Your task to perform on an android device: Open display settings Image 0: 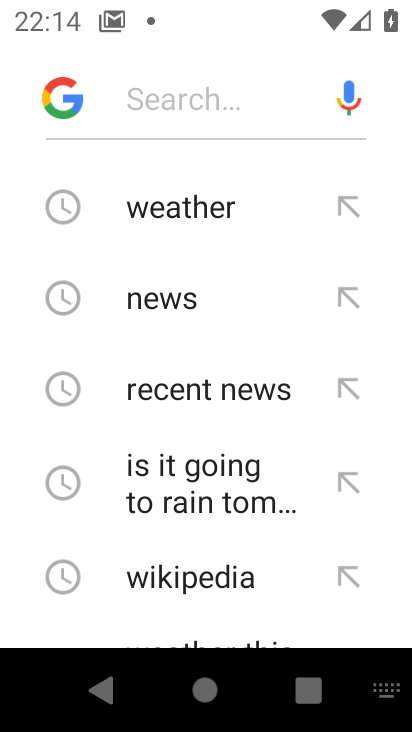
Step 0: press home button
Your task to perform on an android device: Open display settings Image 1: 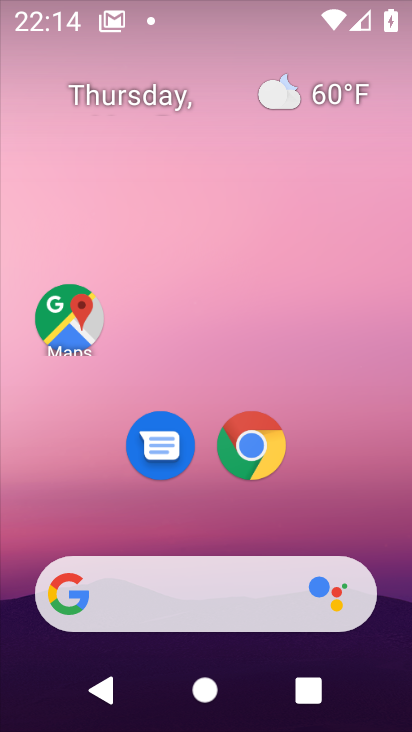
Step 1: click (371, 474)
Your task to perform on an android device: Open display settings Image 2: 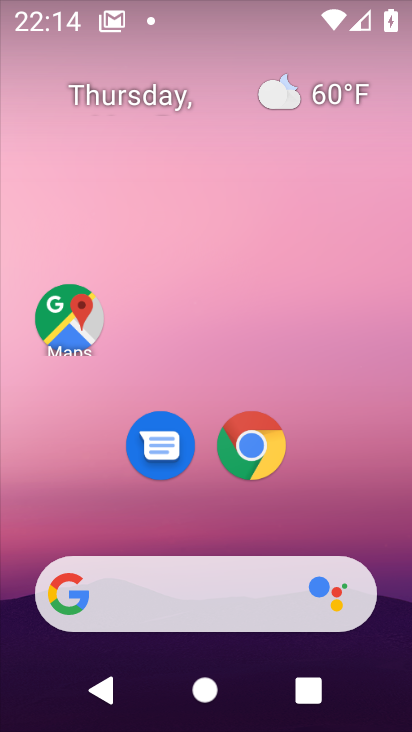
Step 2: drag from (239, 567) to (228, 147)
Your task to perform on an android device: Open display settings Image 3: 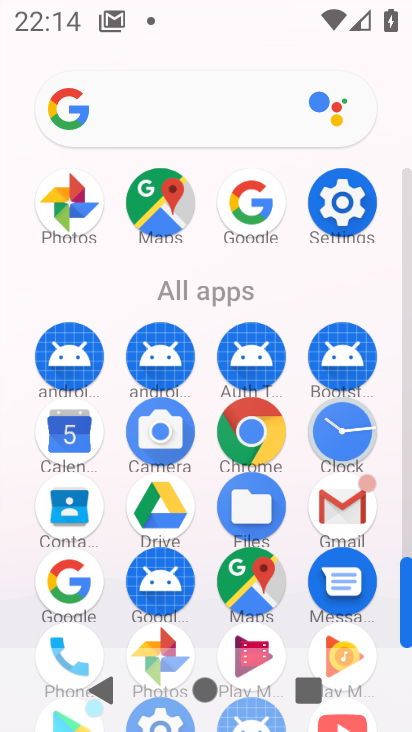
Step 3: click (322, 208)
Your task to perform on an android device: Open display settings Image 4: 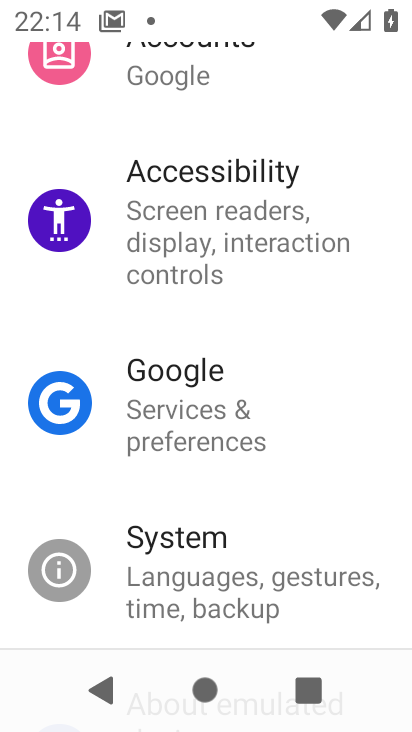
Step 4: drag from (231, 178) to (286, 728)
Your task to perform on an android device: Open display settings Image 5: 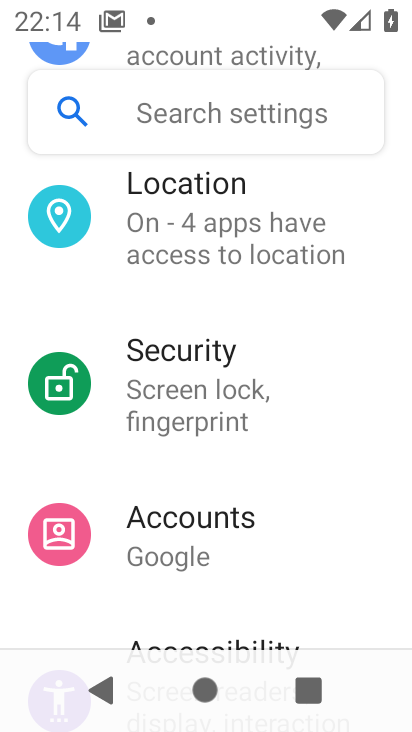
Step 5: drag from (237, 169) to (303, 620)
Your task to perform on an android device: Open display settings Image 6: 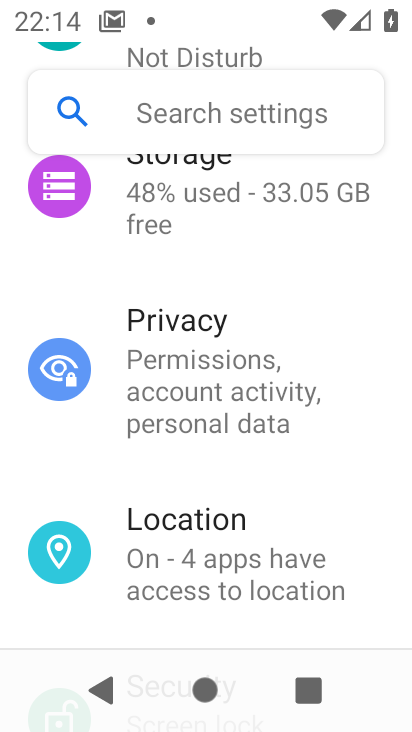
Step 6: drag from (278, 199) to (319, 574)
Your task to perform on an android device: Open display settings Image 7: 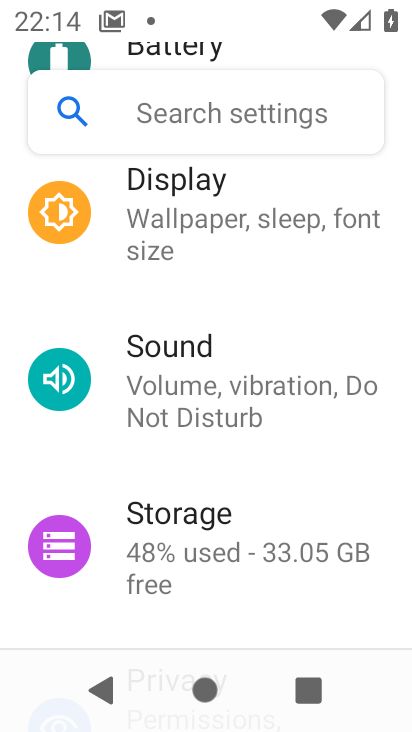
Step 7: click (237, 216)
Your task to perform on an android device: Open display settings Image 8: 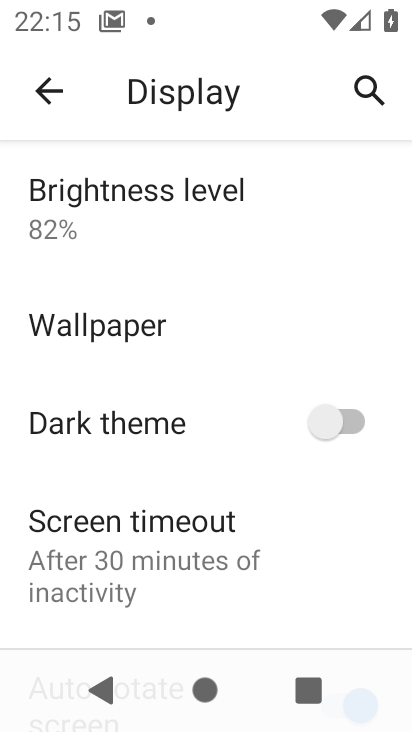
Step 8: task complete